Your task to perform on an android device: Open network settings Image 0: 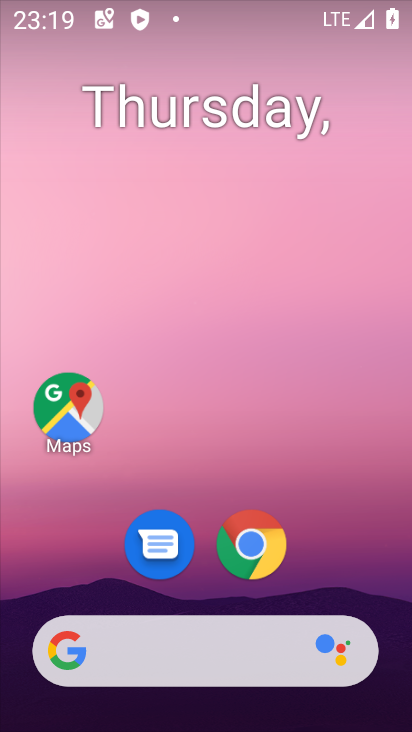
Step 0: drag from (340, 552) to (238, 168)
Your task to perform on an android device: Open network settings Image 1: 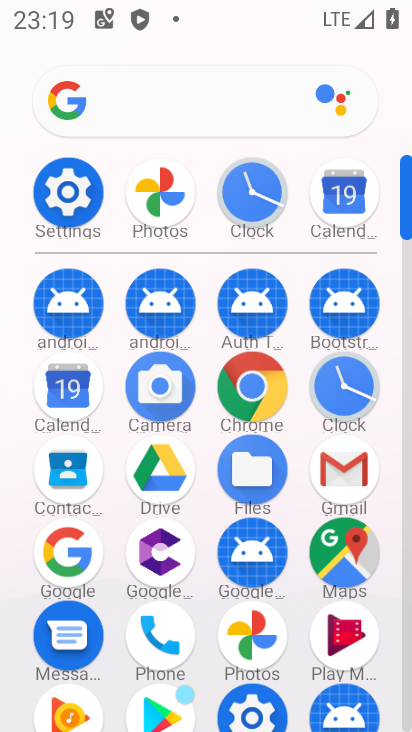
Step 1: click (67, 208)
Your task to perform on an android device: Open network settings Image 2: 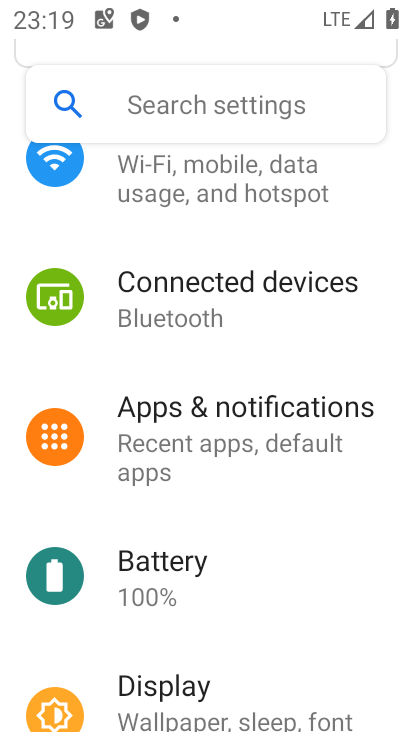
Step 2: click (176, 179)
Your task to perform on an android device: Open network settings Image 3: 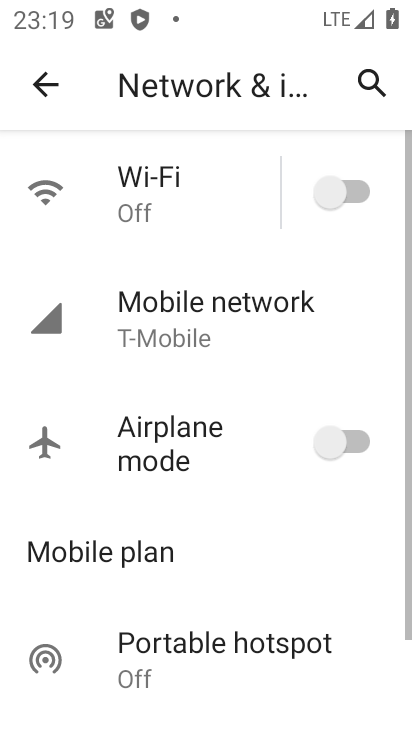
Step 3: click (159, 338)
Your task to perform on an android device: Open network settings Image 4: 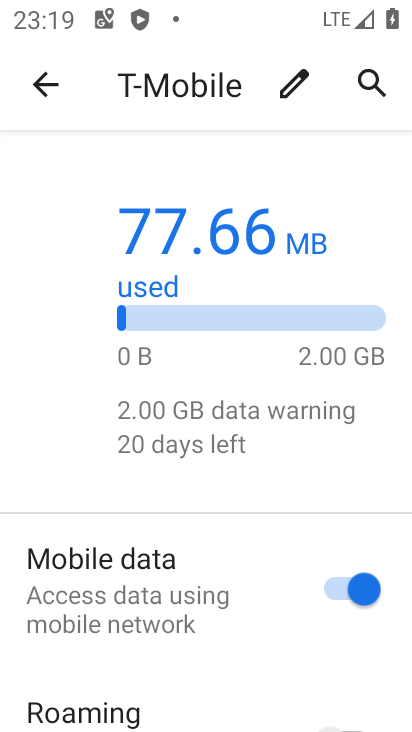
Step 4: task complete